Your task to perform on an android device: Show me popular games on the Play Store Image 0: 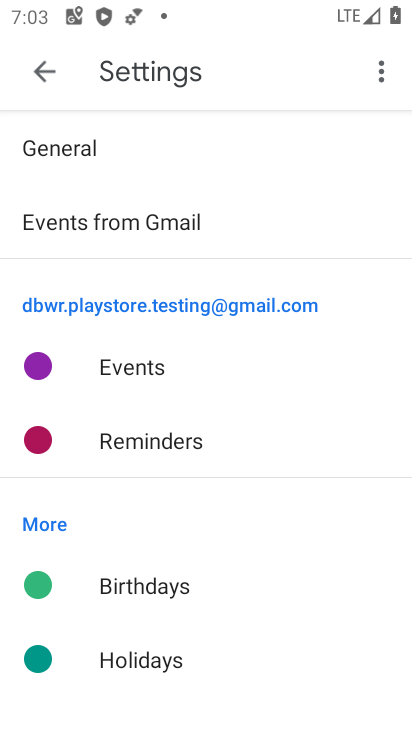
Step 0: press home button
Your task to perform on an android device: Show me popular games on the Play Store Image 1: 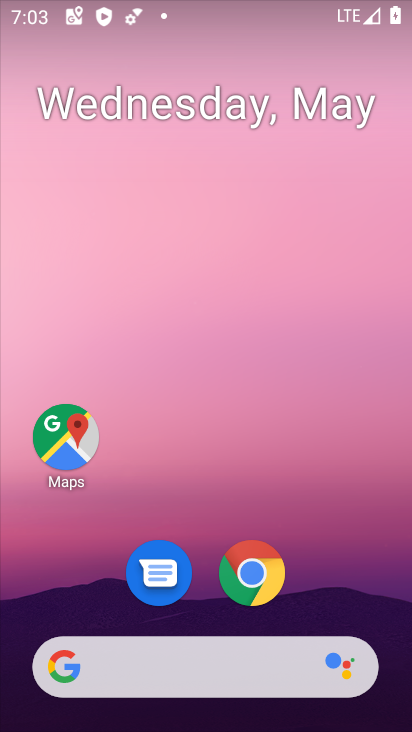
Step 1: drag from (326, 602) to (301, 258)
Your task to perform on an android device: Show me popular games on the Play Store Image 2: 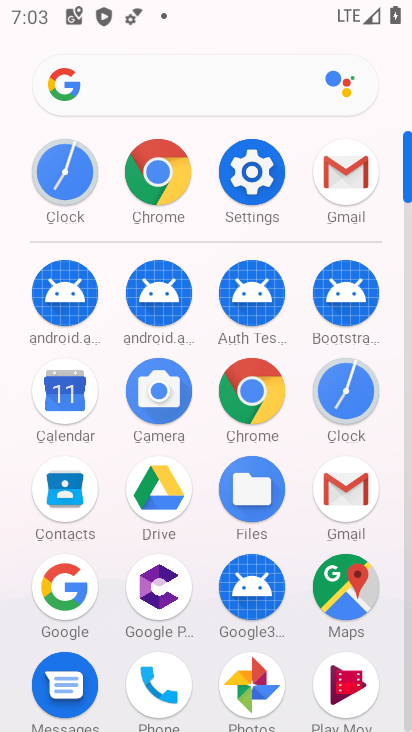
Step 2: drag from (288, 650) to (298, 356)
Your task to perform on an android device: Show me popular games on the Play Store Image 3: 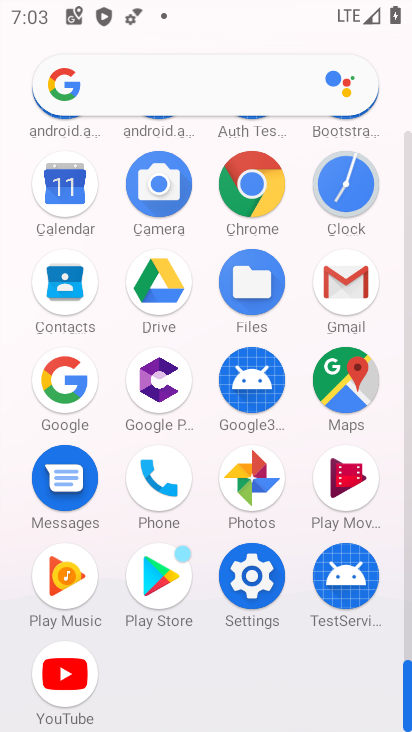
Step 3: click (160, 585)
Your task to perform on an android device: Show me popular games on the Play Store Image 4: 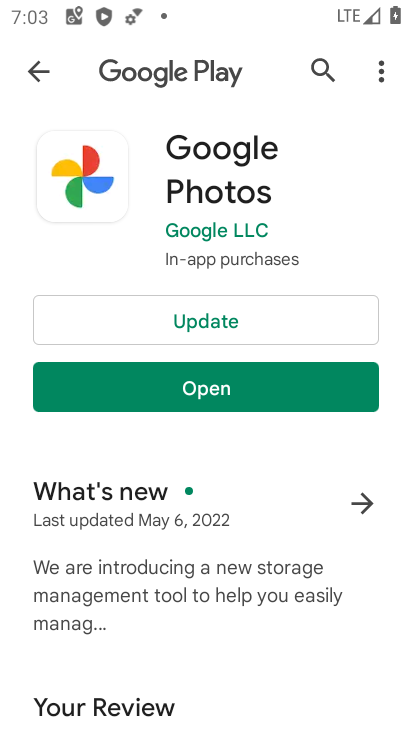
Step 4: click (35, 68)
Your task to perform on an android device: Show me popular games on the Play Store Image 5: 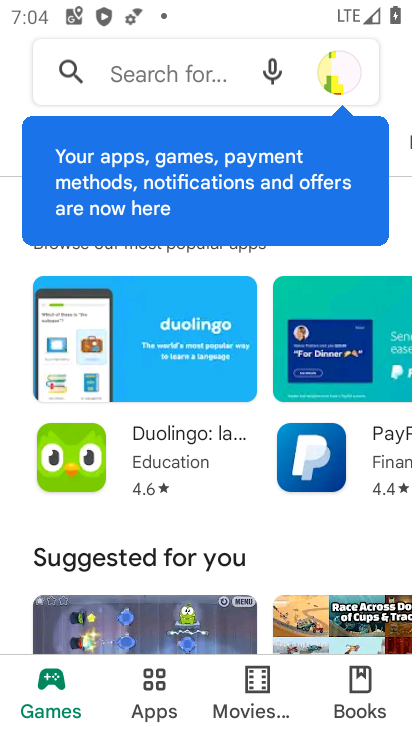
Step 5: task complete